Your task to perform on an android device: turn off smart reply in the gmail app Image 0: 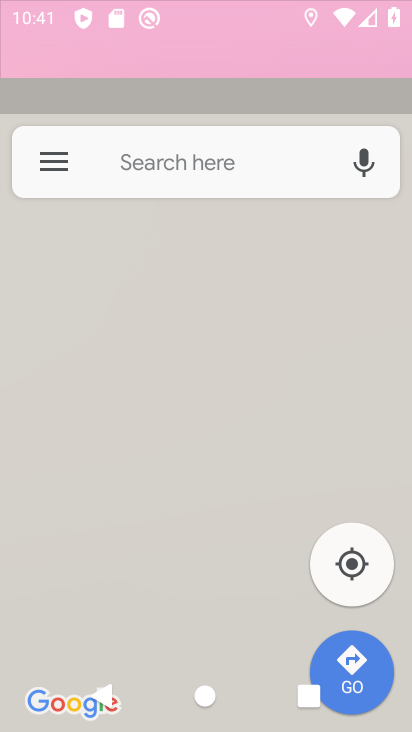
Step 0: press home button
Your task to perform on an android device: turn off smart reply in the gmail app Image 1: 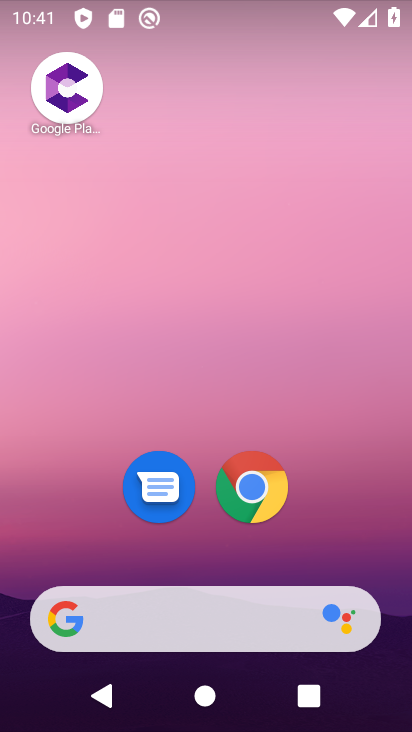
Step 1: drag from (226, 543) to (221, 214)
Your task to perform on an android device: turn off smart reply in the gmail app Image 2: 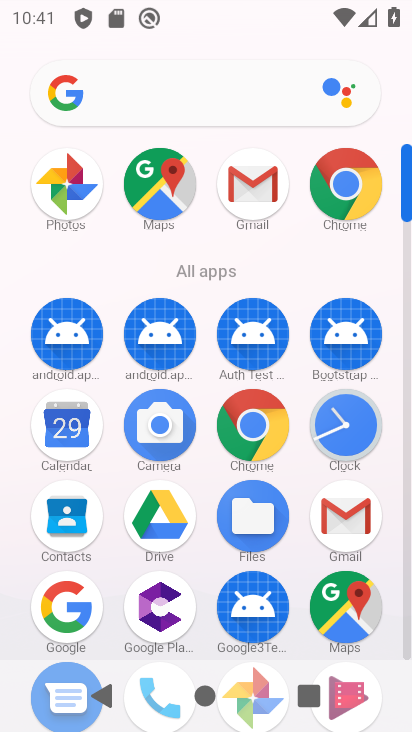
Step 2: click (341, 507)
Your task to perform on an android device: turn off smart reply in the gmail app Image 3: 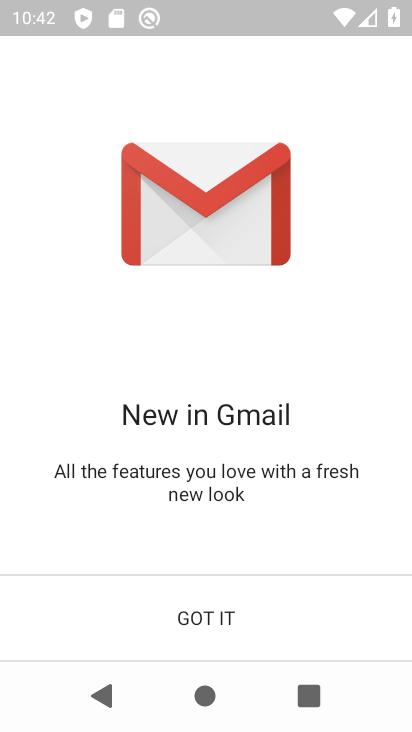
Step 3: click (211, 630)
Your task to perform on an android device: turn off smart reply in the gmail app Image 4: 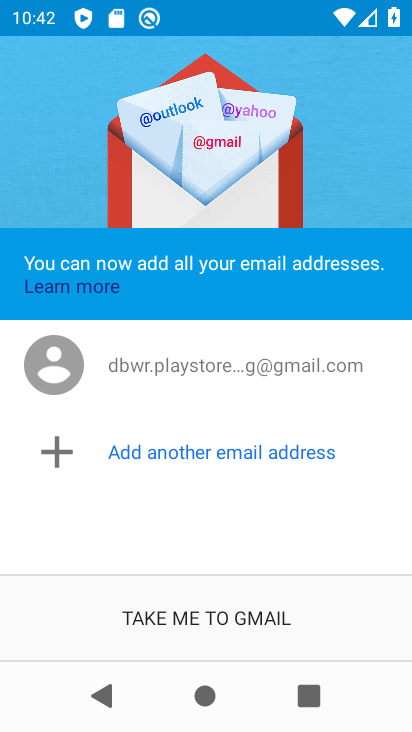
Step 4: click (199, 629)
Your task to perform on an android device: turn off smart reply in the gmail app Image 5: 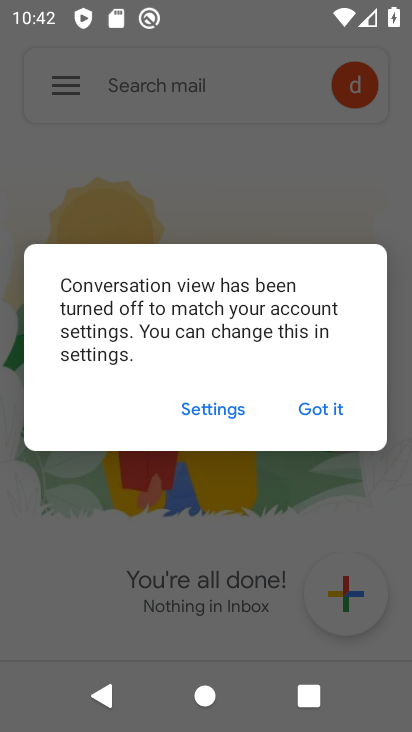
Step 5: click (333, 416)
Your task to perform on an android device: turn off smart reply in the gmail app Image 6: 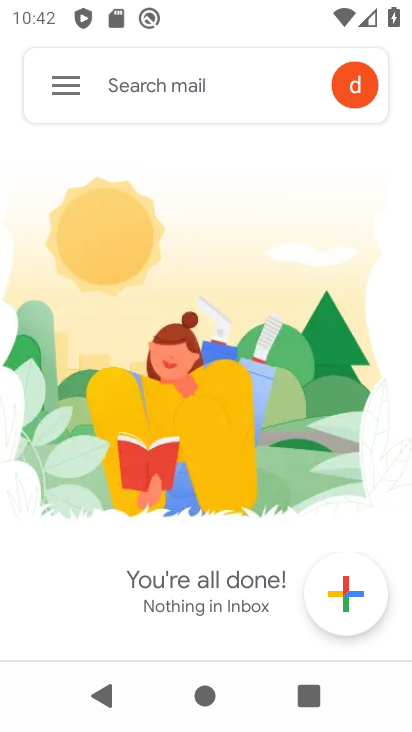
Step 6: click (66, 84)
Your task to perform on an android device: turn off smart reply in the gmail app Image 7: 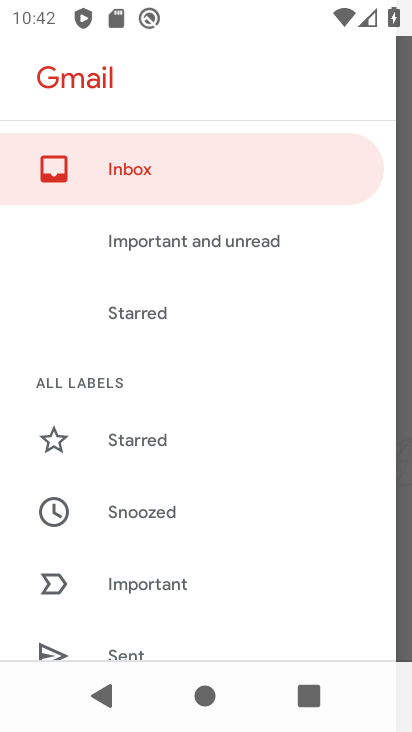
Step 7: drag from (210, 574) to (234, 129)
Your task to perform on an android device: turn off smart reply in the gmail app Image 8: 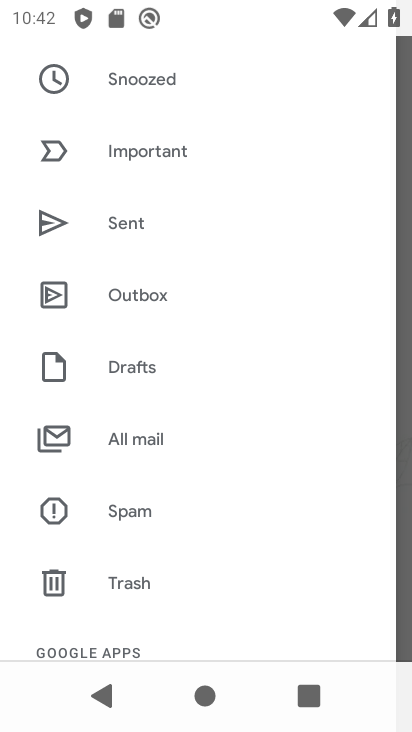
Step 8: drag from (199, 595) to (247, 120)
Your task to perform on an android device: turn off smart reply in the gmail app Image 9: 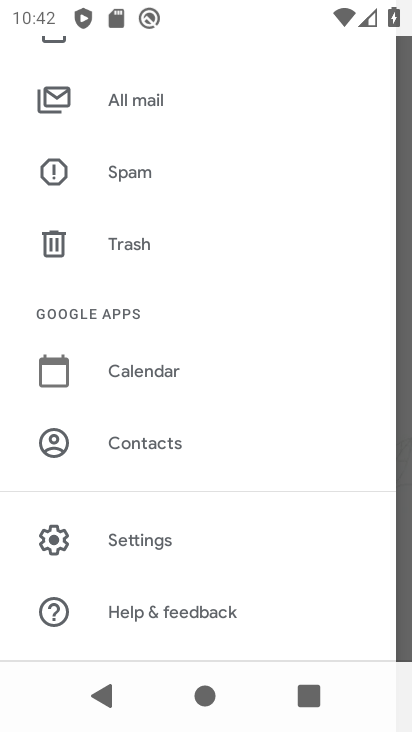
Step 9: click (176, 535)
Your task to perform on an android device: turn off smart reply in the gmail app Image 10: 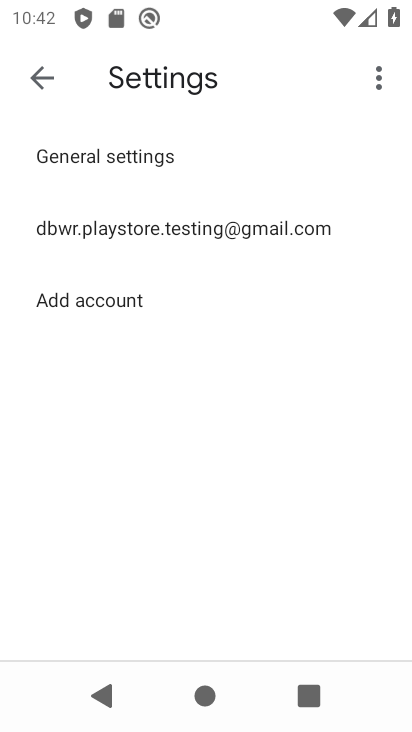
Step 10: click (209, 225)
Your task to perform on an android device: turn off smart reply in the gmail app Image 11: 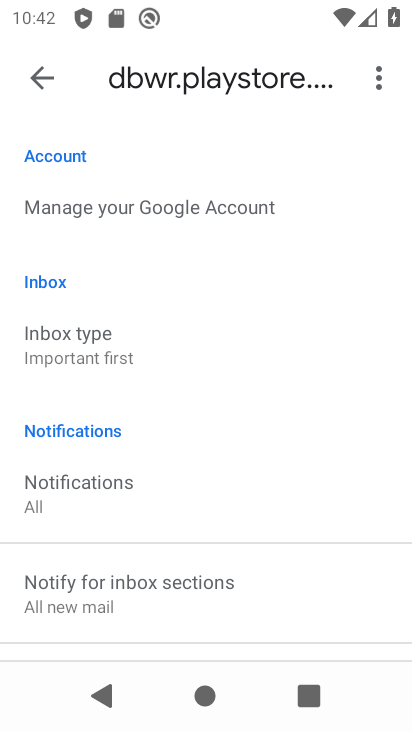
Step 11: drag from (211, 546) to (263, 32)
Your task to perform on an android device: turn off smart reply in the gmail app Image 12: 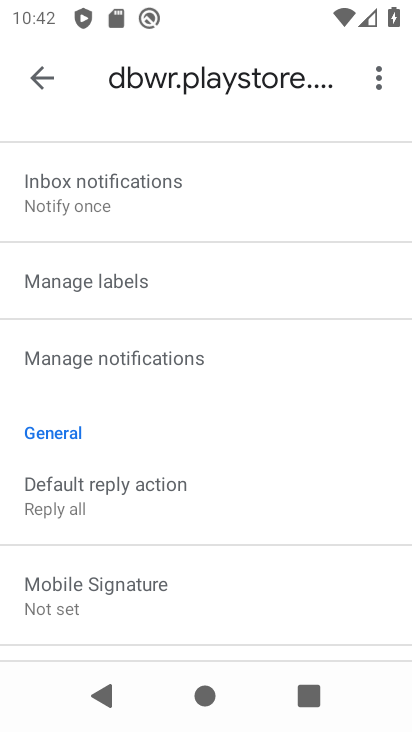
Step 12: drag from (245, 601) to (289, 76)
Your task to perform on an android device: turn off smart reply in the gmail app Image 13: 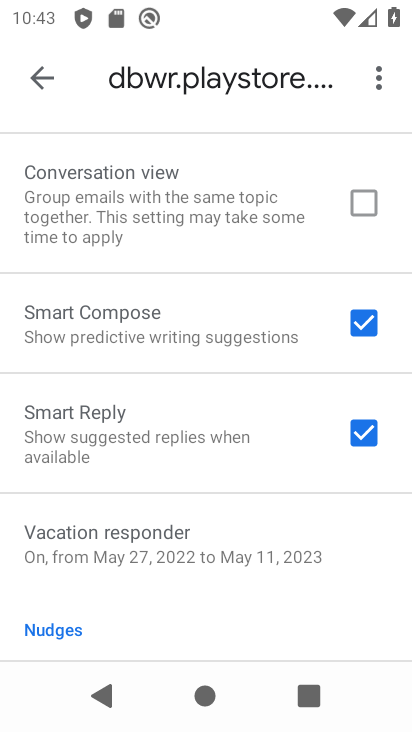
Step 13: click (364, 424)
Your task to perform on an android device: turn off smart reply in the gmail app Image 14: 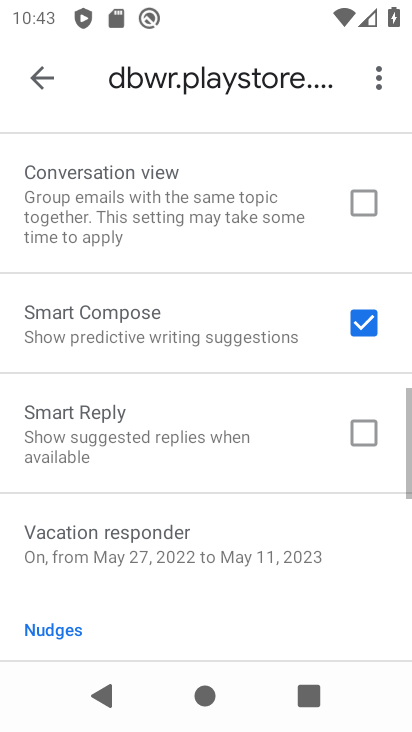
Step 14: task complete